Your task to perform on an android device: turn notification dots on Image 0: 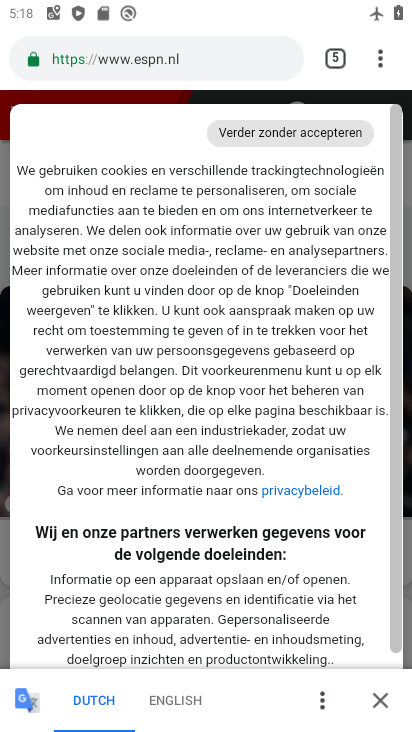
Step 0: press home button
Your task to perform on an android device: turn notification dots on Image 1: 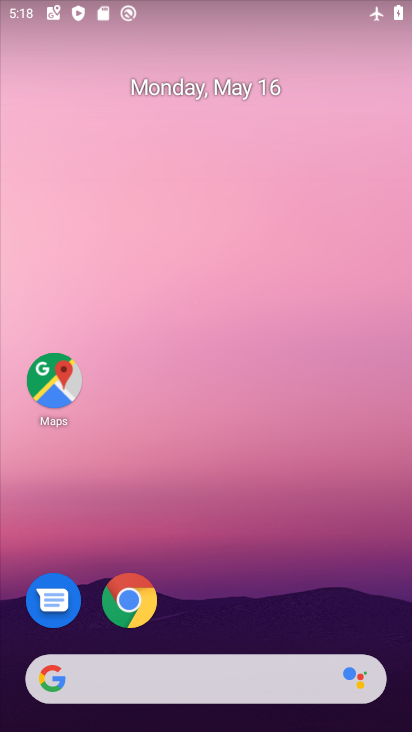
Step 1: drag from (223, 626) to (182, 154)
Your task to perform on an android device: turn notification dots on Image 2: 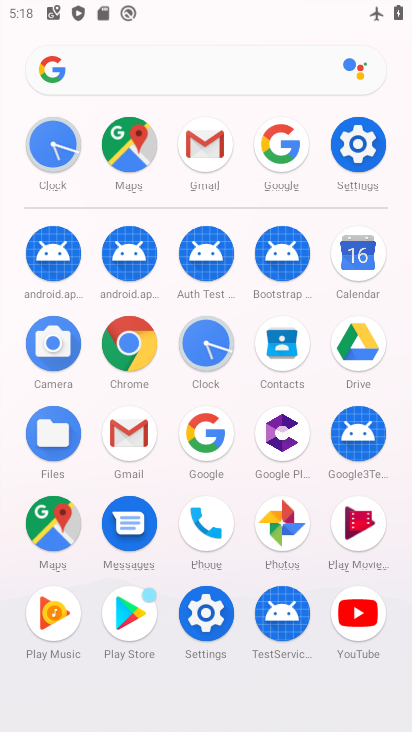
Step 2: click (337, 154)
Your task to perform on an android device: turn notification dots on Image 3: 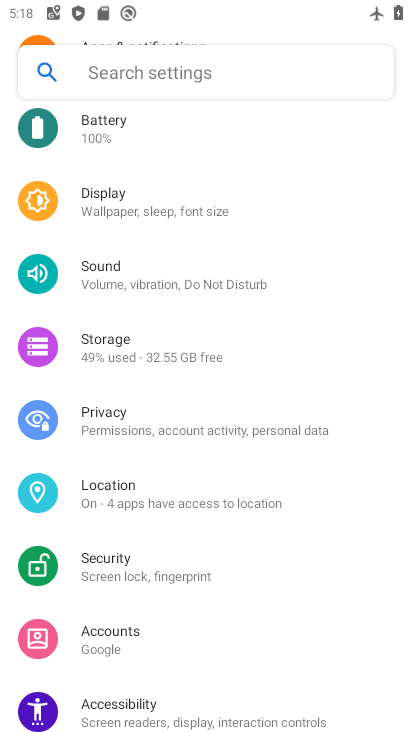
Step 3: drag from (233, 545) to (190, 82)
Your task to perform on an android device: turn notification dots on Image 4: 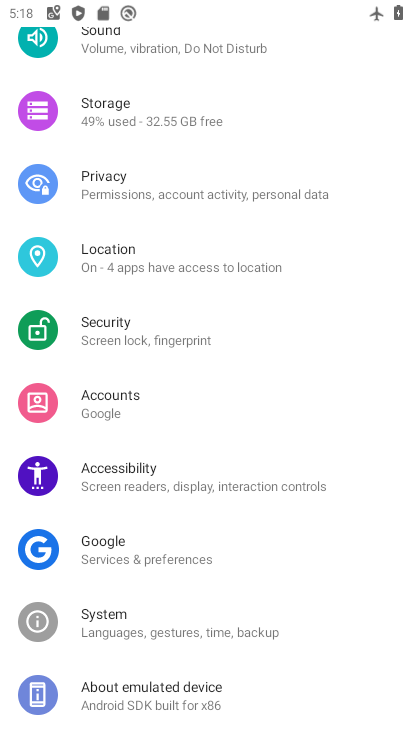
Step 4: drag from (252, 229) to (282, 632)
Your task to perform on an android device: turn notification dots on Image 5: 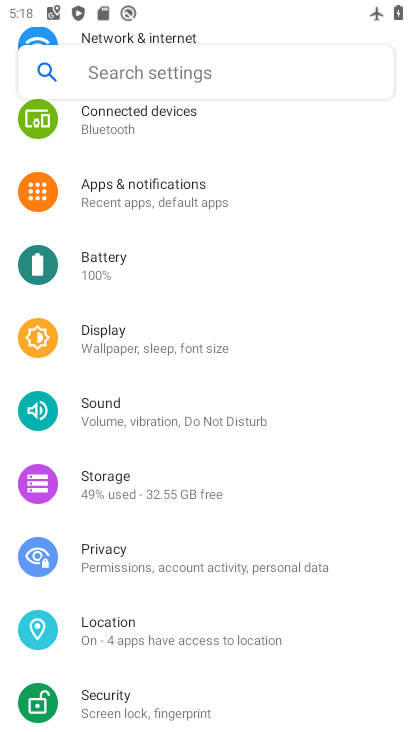
Step 5: click (185, 200)
Your task to perform on an android device: turn notification dots on Image 6: 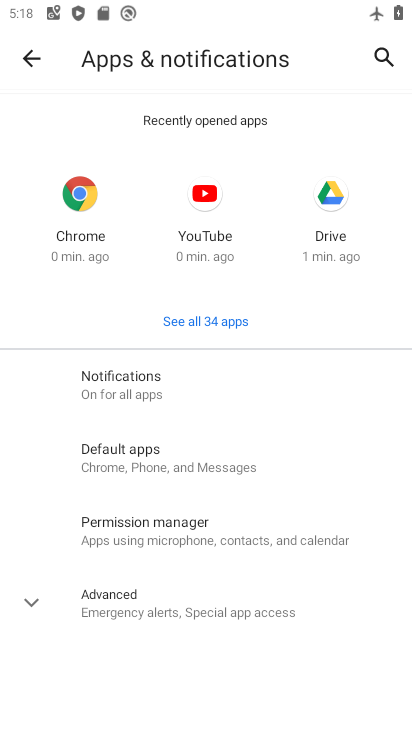
Step 6: click (151, 385)
Your task to perform on an android device: turn notification dots on Image 7: 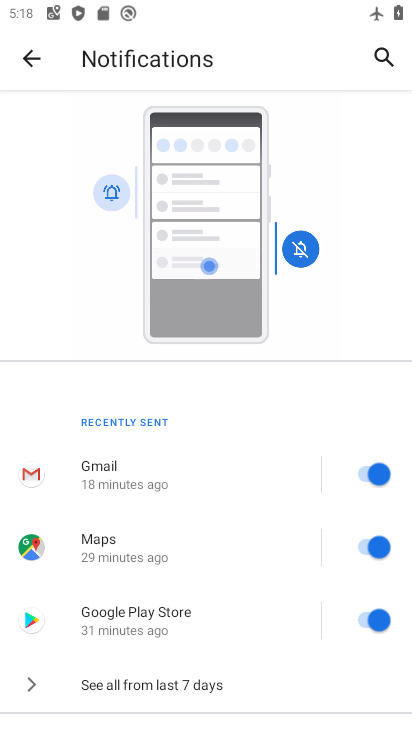
Step 7: click (33, 82)
Your task to perform on an android device: turn notification dots on Image 8: 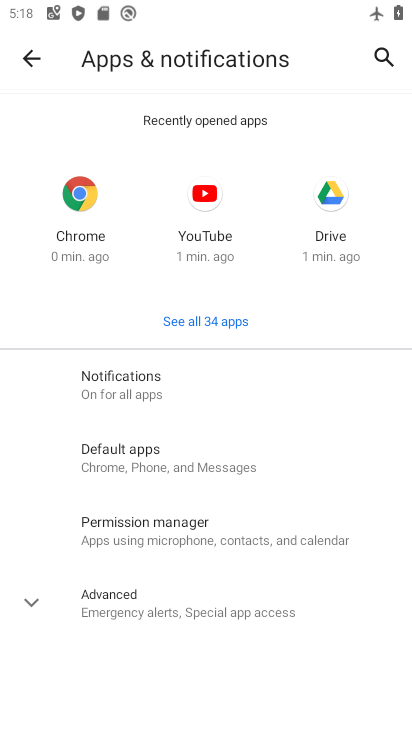
Step 8: click (170, 582)
Your task to perform on an android device: turn notification dots on Image 9: 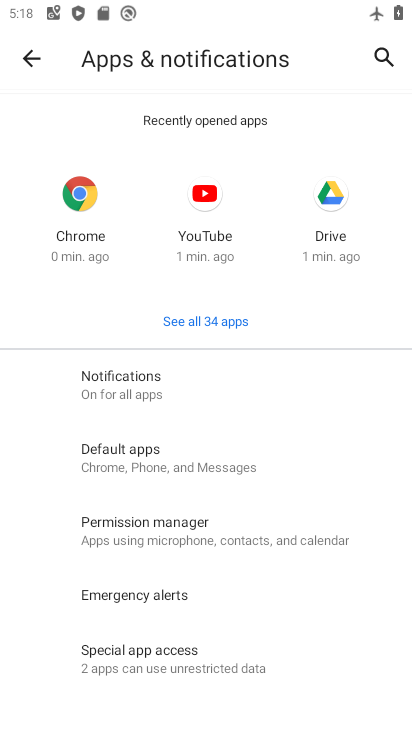
Step 9: drag from (170, 582) to (127, 71)
Your task to perform on an android device: turn notification dots on Image 10: 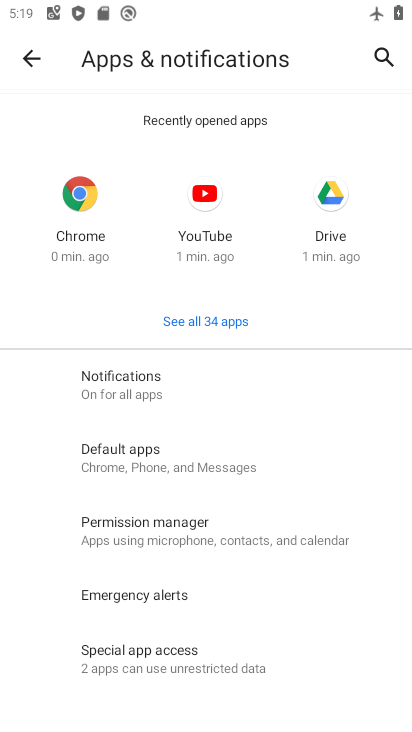
Step 10: click (128, 381)
Your task to perform on an android device: turn notification dots on Image 11: 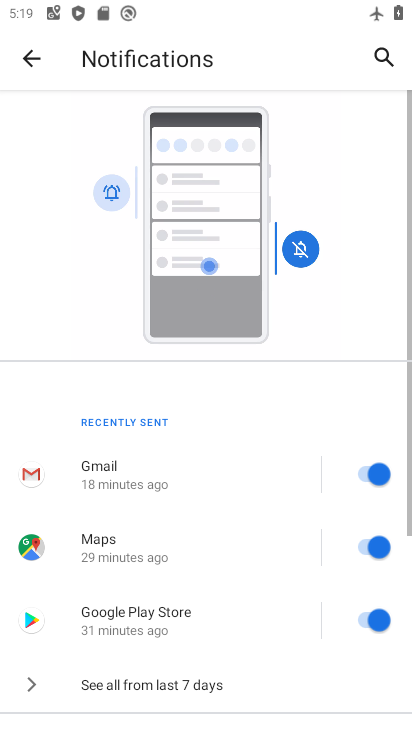
Step 11: drag from (210, 658) to (185, 33)
Your task to perform on an android device: turn notification dots on Image 12: 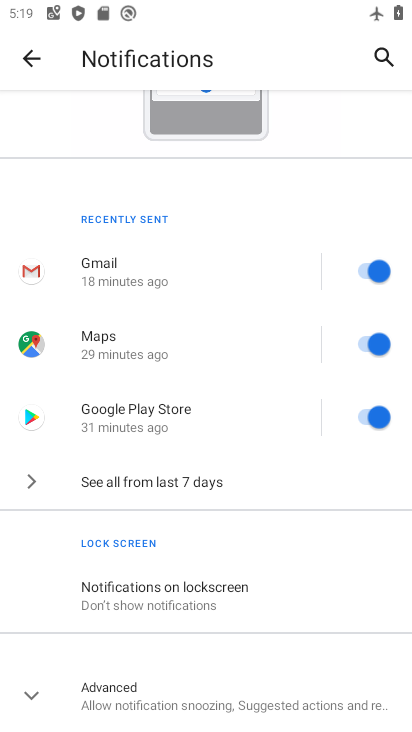
Step 12: click (217, 672)
Your task to perform on an android device: turn notification dots on Image 13: 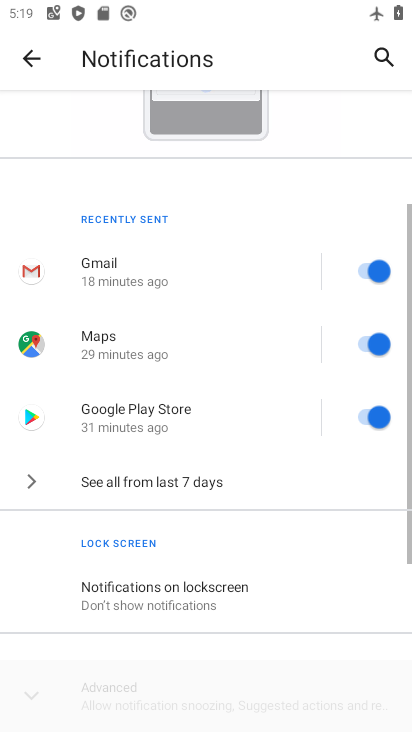
Step 13: task complete